Your task to perform on an android device: Go to privacy settings Image 0: 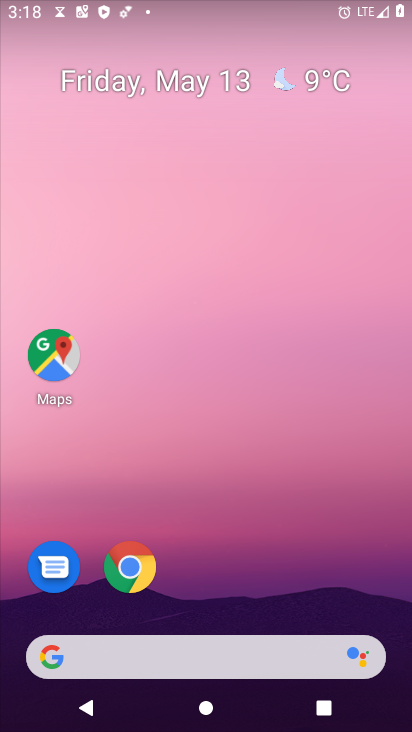
Step 0: drag from (245, 573) to (297, 6)
Your task to perform on an android device: Go to privacy settings Image 1: 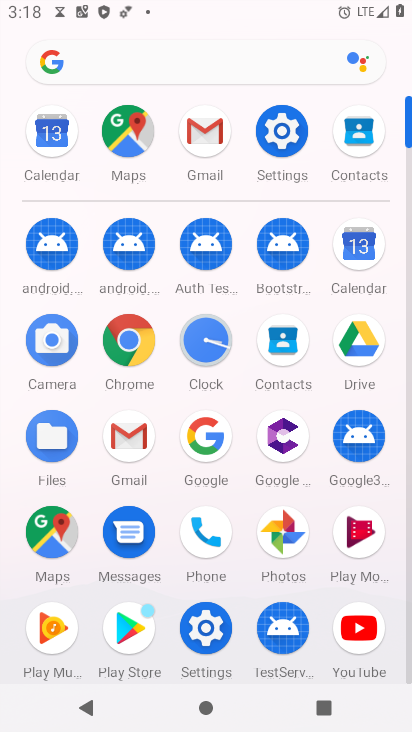
Step 1: click (281, 136)
Your task to perform on an android device: Go to privacy settings Image 2: 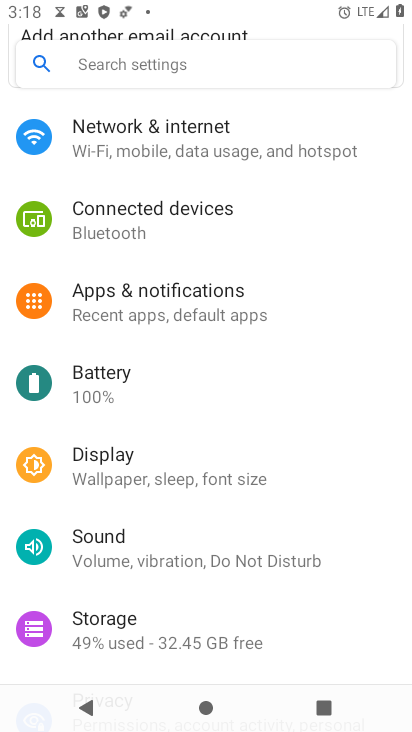
Step 2: drag from (304, 584) to (263, 240)
Your task to perform on an android device: Go to privacy settings Image 3: 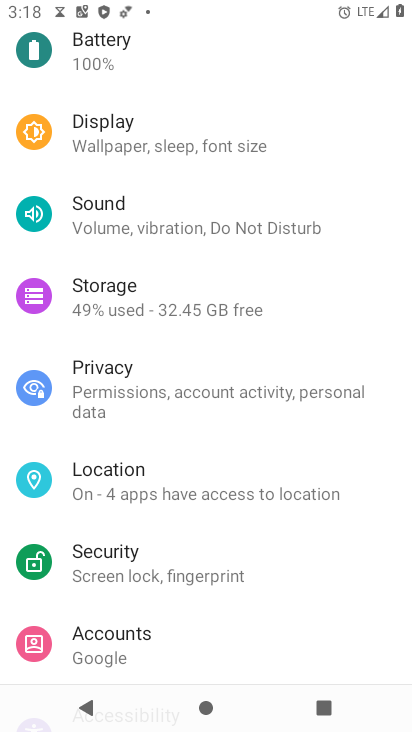
Step 3: click (104, 388)
Your task to perform on an android device: Go to privacy settings Image 4: 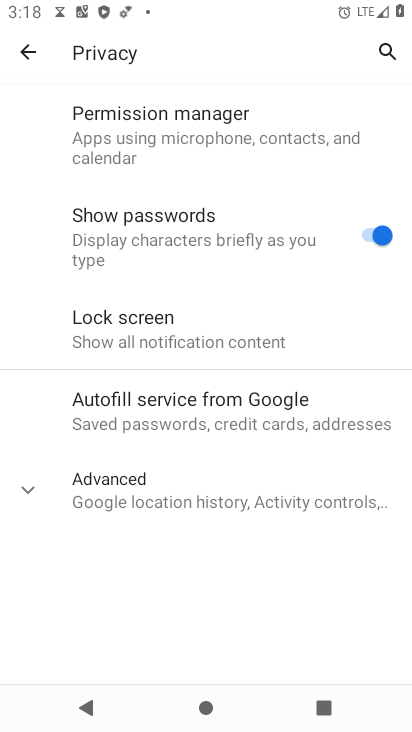
Step 4: task complete